Your task to perform on an android device: Open Google Chrome and click the shortcut for Amazon.com Image 0: 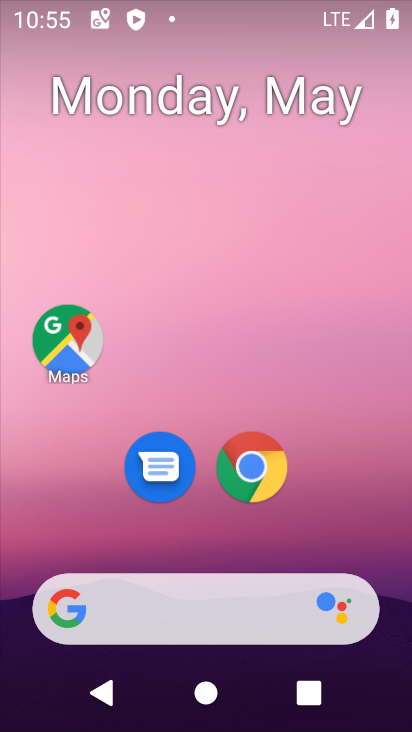
Step 0: click (359, 522)
Your task to perform on an android device: Open Google Chrome and click the shortcut for Amazon.com Image 1: 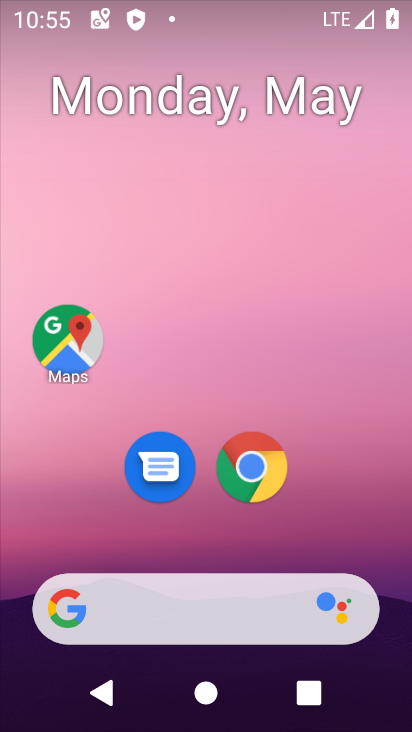
Step 1: click (246, 439)
Your task to perform on an android device: Open Google Chrome and click the shortcut for Amazon.com Image 2: 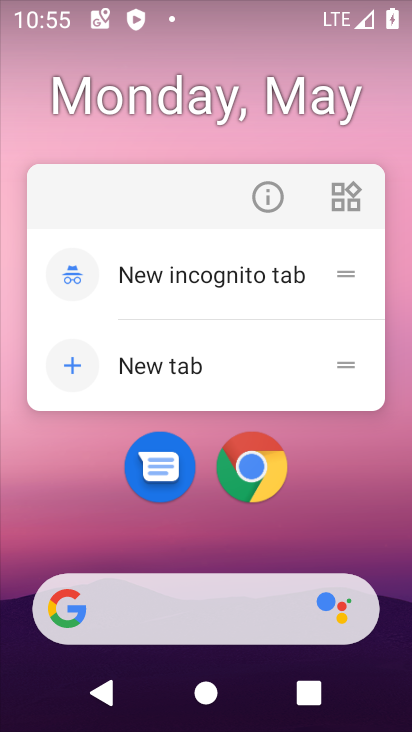
Step 2: click (265, 472)
Your task to perform on an android device: Open Google Chrome and click the shortcut for Amazon.com Image 3: 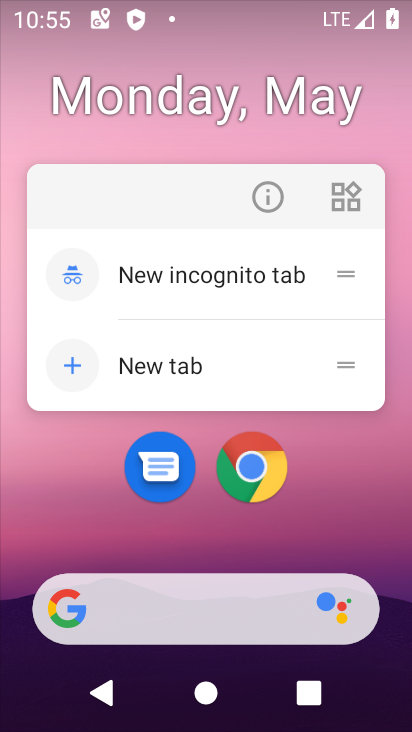
Step 3: click (250, 457)
Your task to perform on an android device: Open Google Chrome and click the shortcut for Amazon.com Image 4: 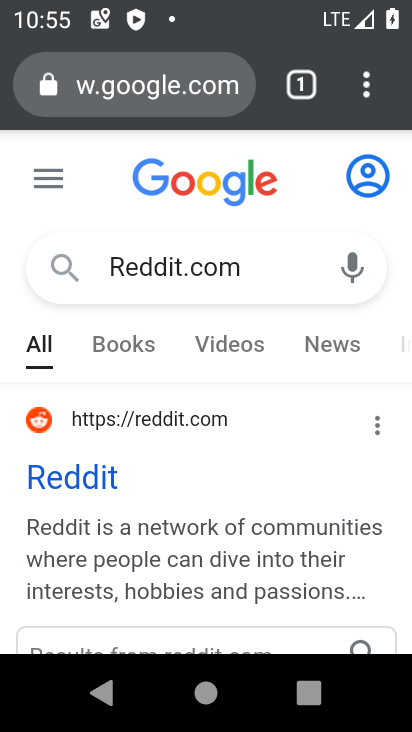
Step 4: click (368, 74)
Your task to perform on an android device: Open Google Chrome and click the shortcut for Amazon.com Image 5: 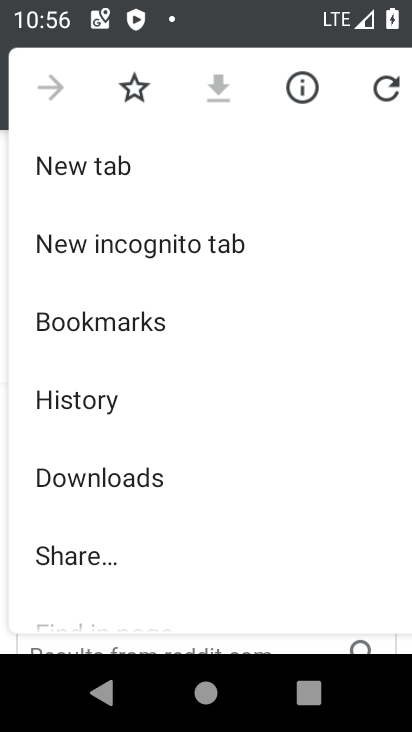
Step 5: click (117, 167)
Your task to perform on an android device: Open Google Chrome and click the shortcut for Amazon.com Image 6: 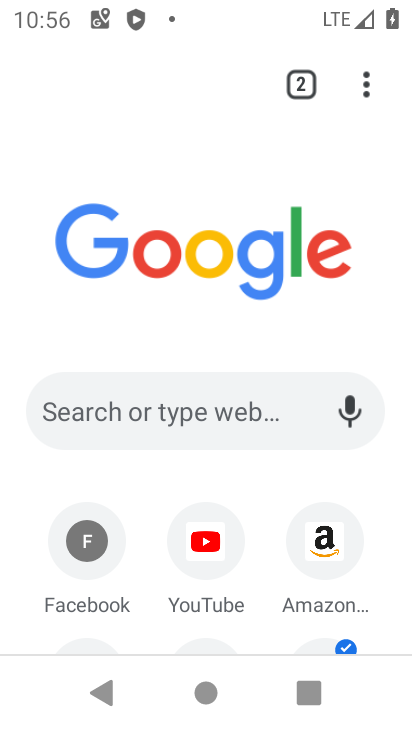
Step 6: click (302, 535)
Your task to perform on an android device: Open Google Chrome and click the shortcut for Amazon.com Image 7: 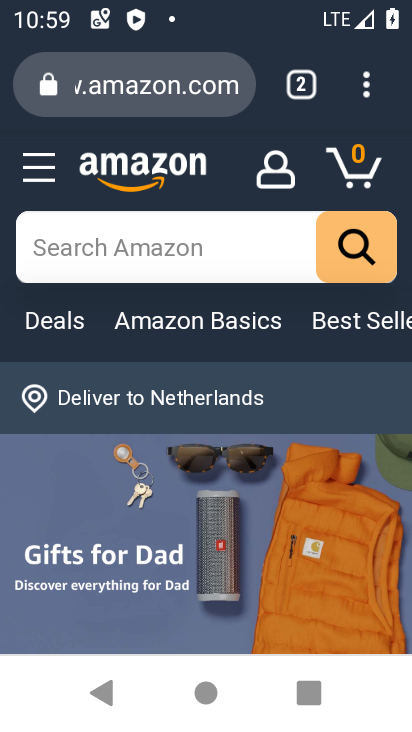
Step 7: task complete